Your task to perform on an android device: What time is it in London? Image 0: 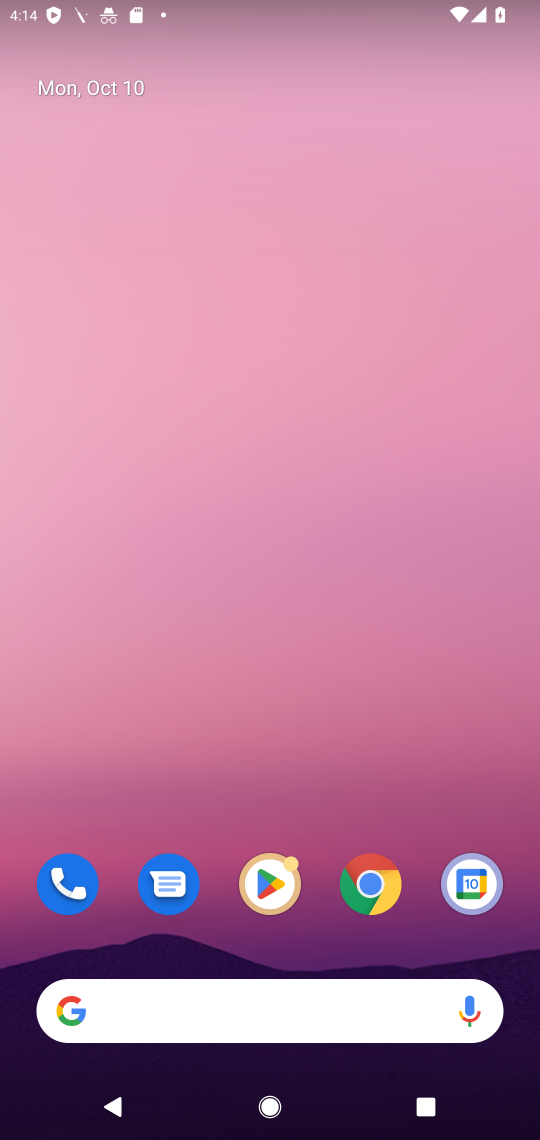
Step 0: click (288, 1031)
Your task to perform on an android device: What time is it in London? Image 1: 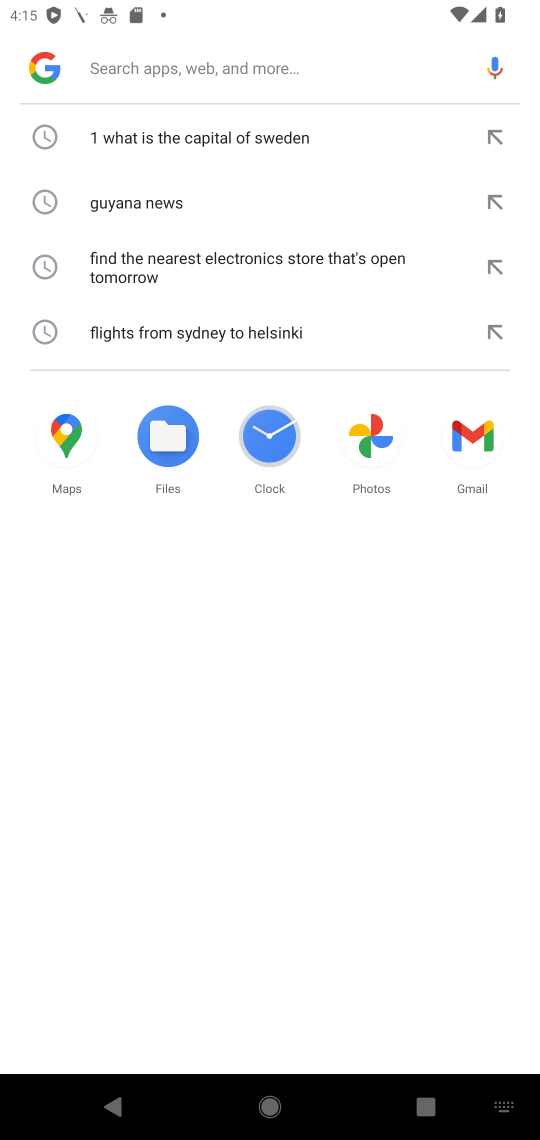
Step 1: type "what time is it in londan"
Your task to perform on an android device: What time is it in London? Image 2: 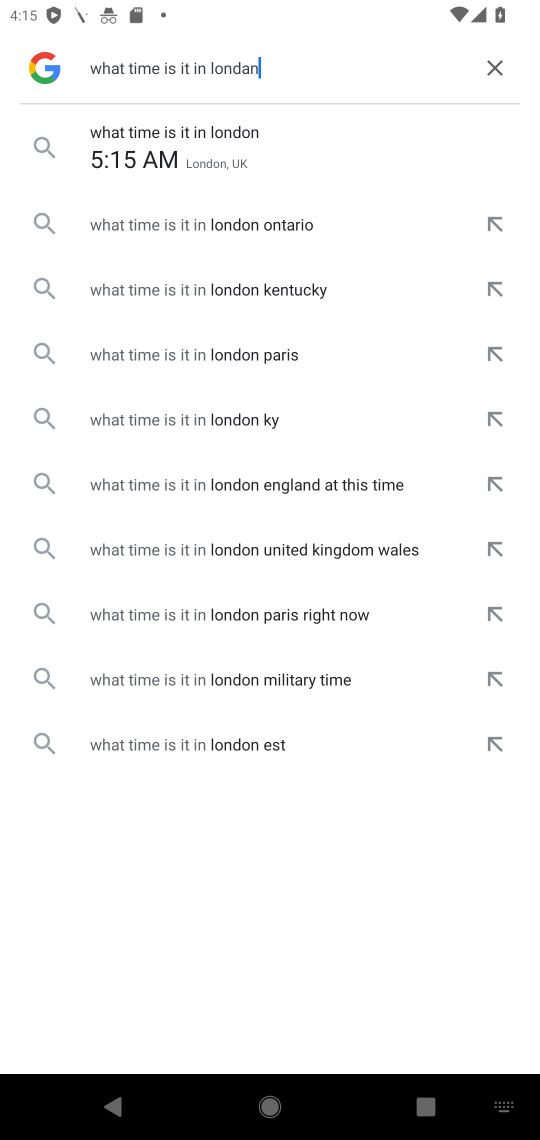
Step 2: click (151, 128)
Your task to perform on an android device: What time is it in London? Image 3: 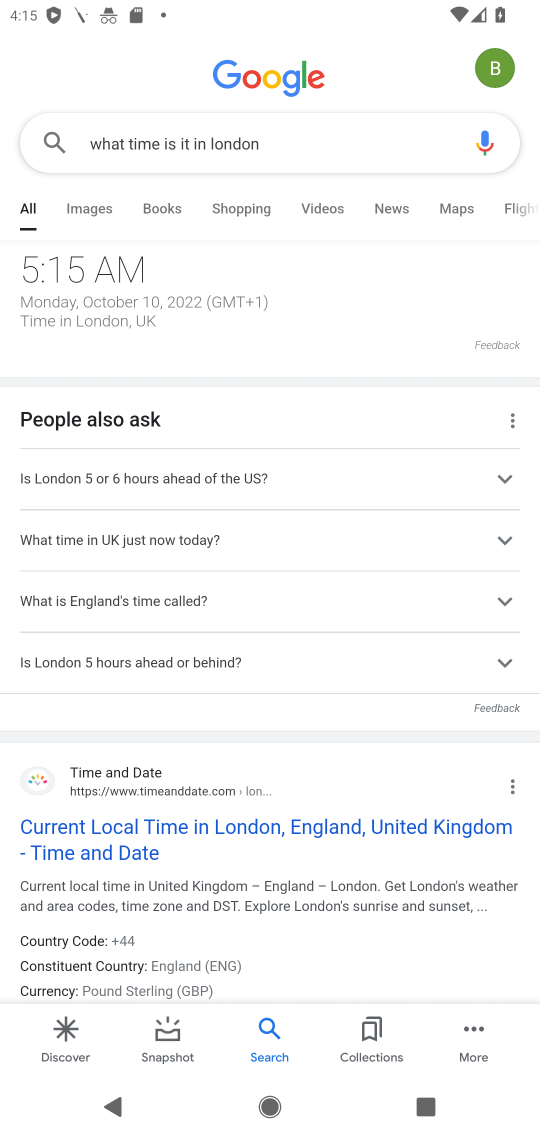
Step 3: task complete